Your task to perform on an android device: Set an alarm for 9am Image 0: 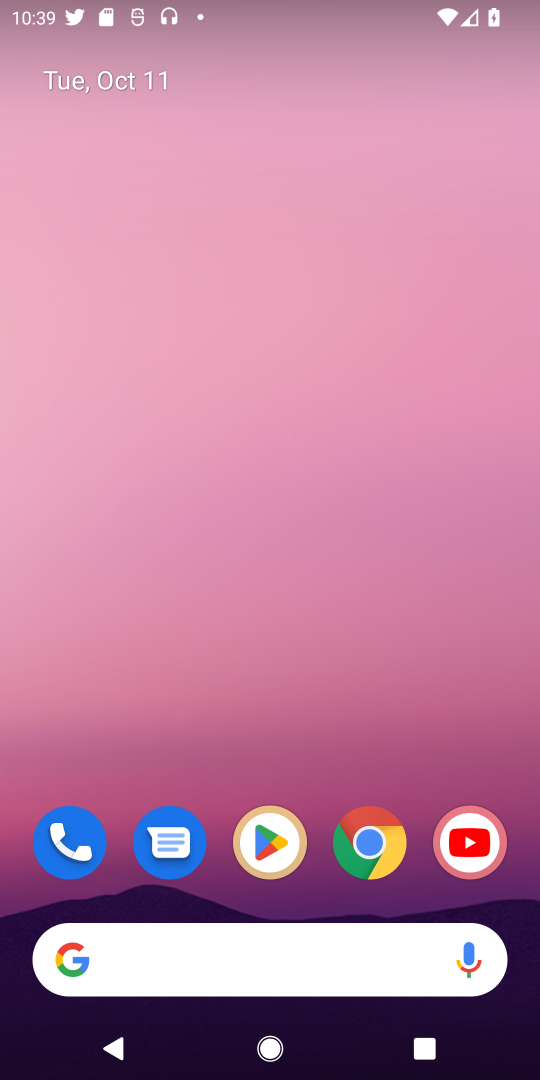
Step 0: drag from (330, 699) to (410, 344)
Your task to perform on an android device: Set an alarm for 9am Image 1: 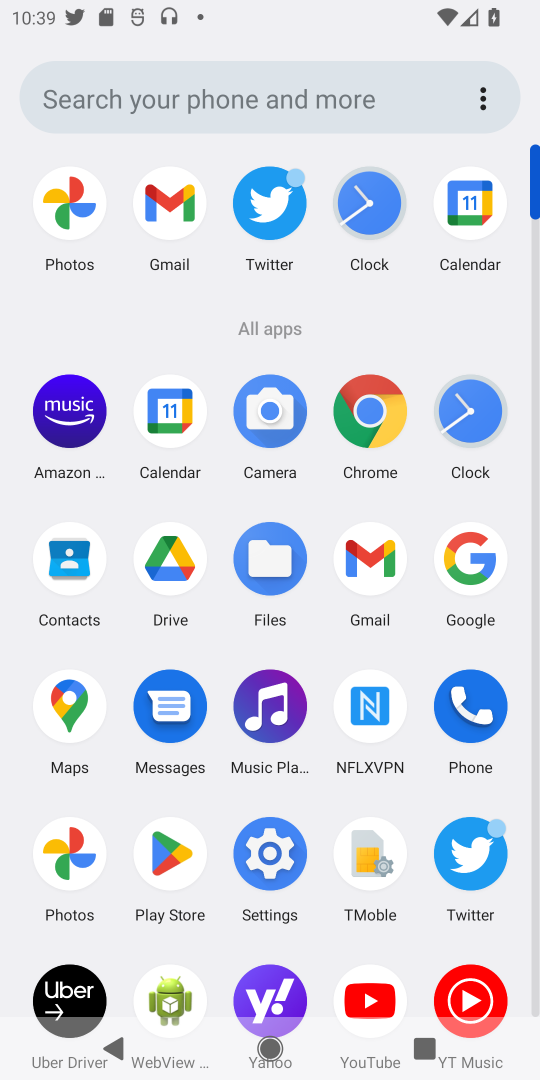
Step 1: click (453, 421)
Your task to perform on an android device: Set an alarm for 9am Image 2: 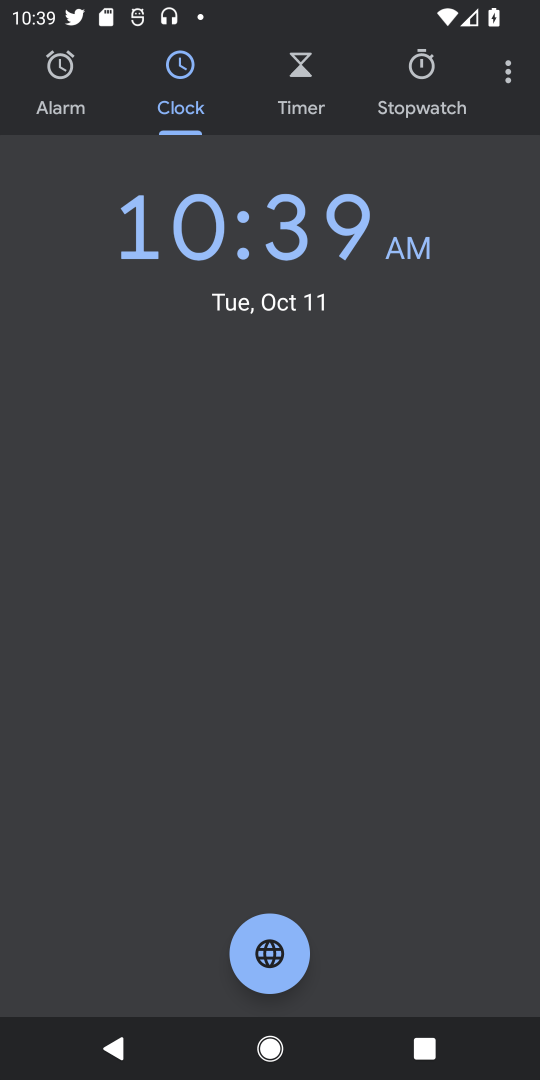
Step 2: click (38, 95)
Your task to perform on an android device: Set an alarm for 9am Image 3: 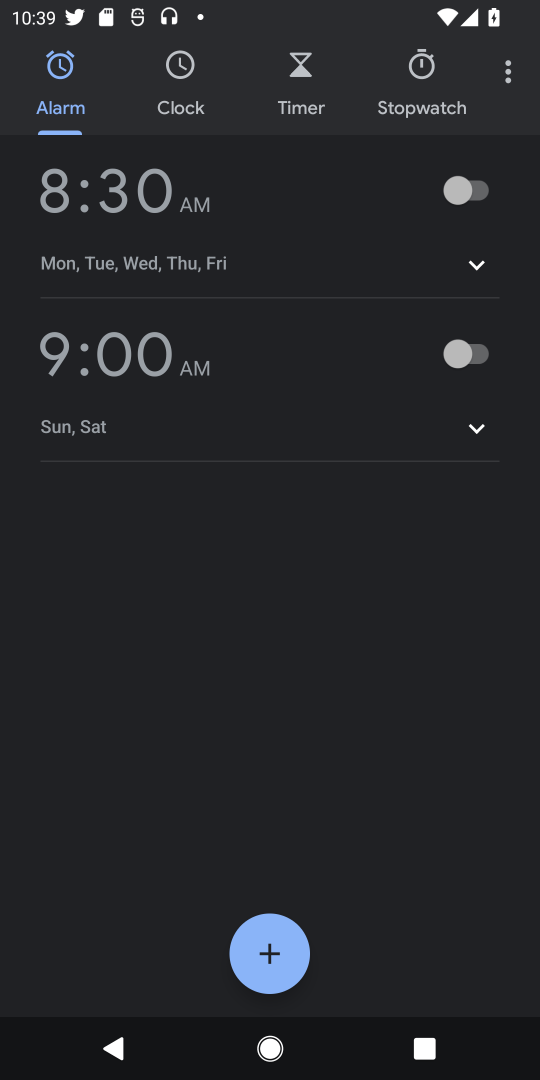
Step 3: click (189, 210)
Your task to perform on an android device: Set an alarm for 9am Image 4: 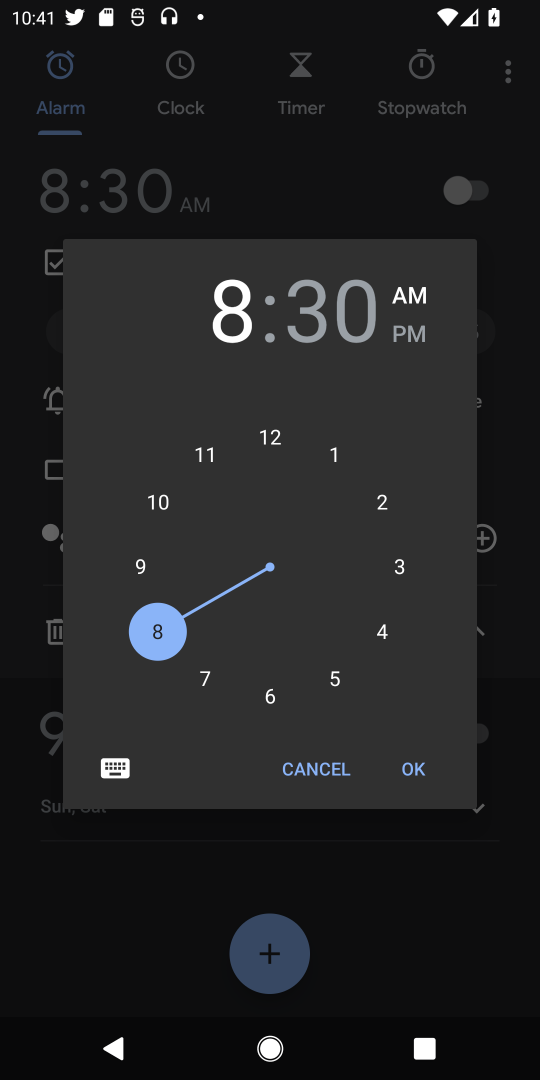
Step 4: click (130, 553)
Your task to perform on an android device: Set an alarm for 9am Image 5: 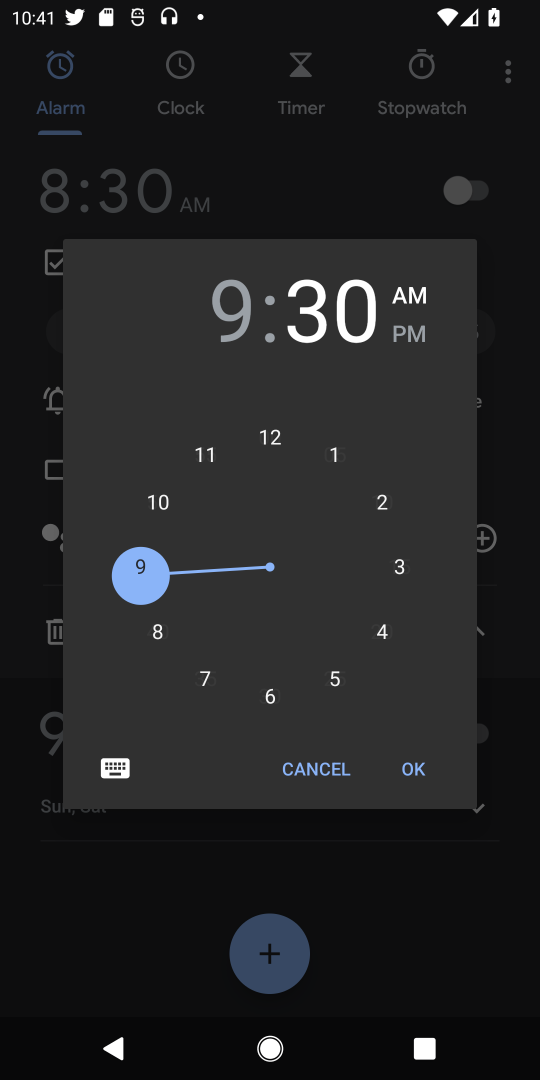
Step 5: click (142, 577)
Your task to perform on an android device: Set an alarm for 9am Image 6: 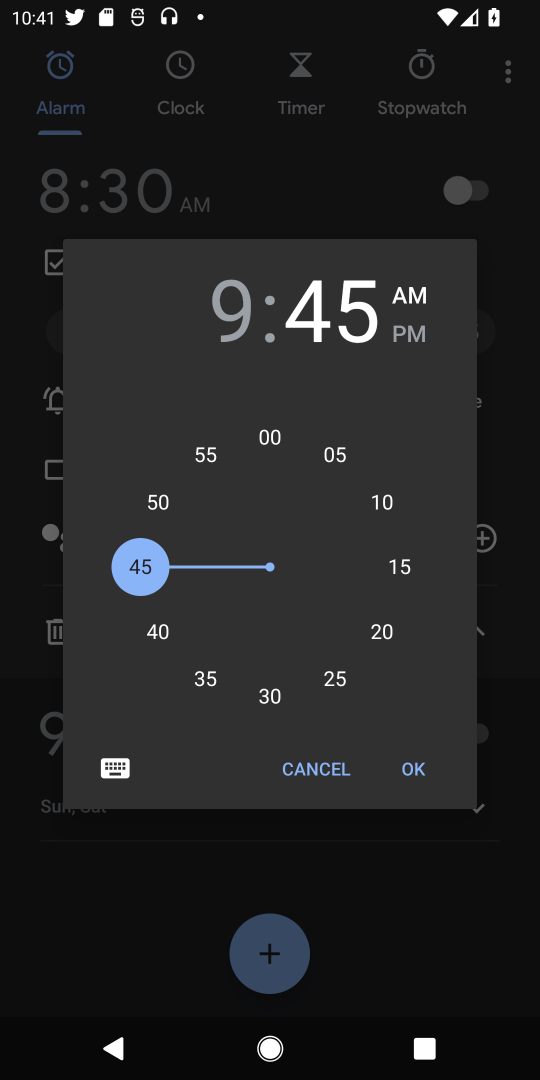
Step 6: click (146, 571)
Your task to perform on an android device: Set an alarm for 9am Image 7: 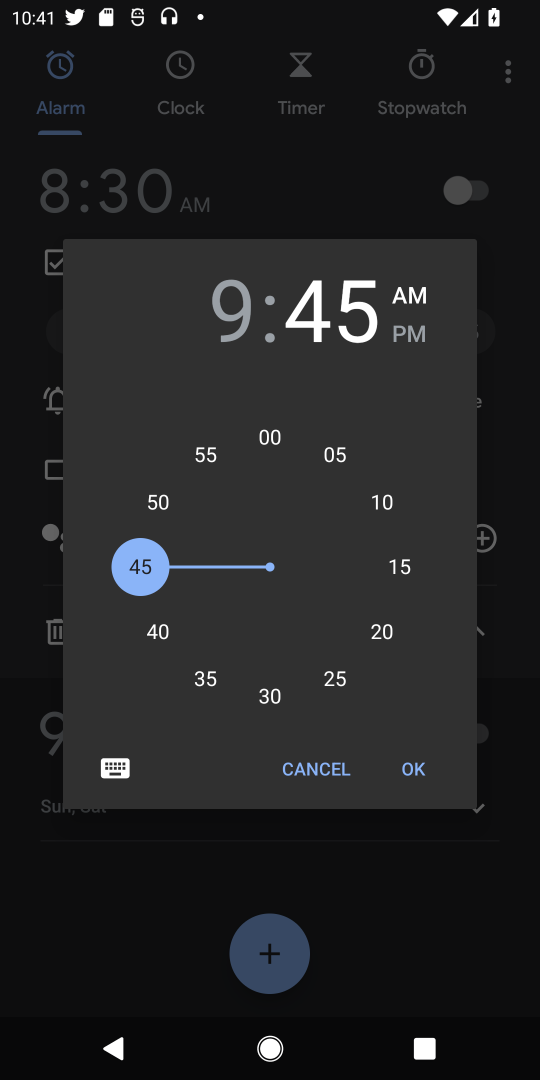
Step 7: click (308, 311)
Your task to perform on an android device: Set an alarm for 9am Image 8: 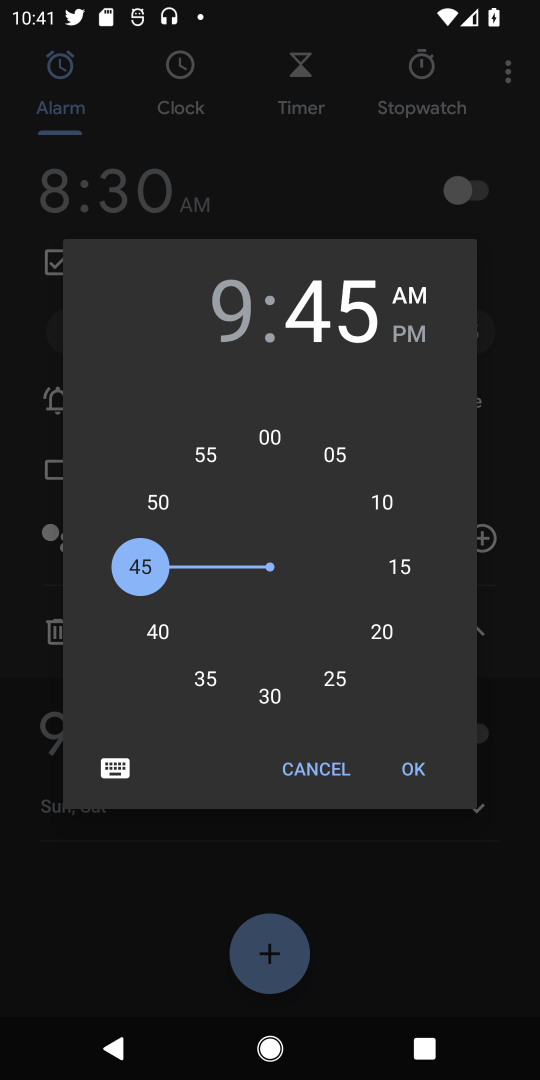
Step 8: click (277, 439)
Your task to perform on an android device: Set an alarm for 9am Image 9: 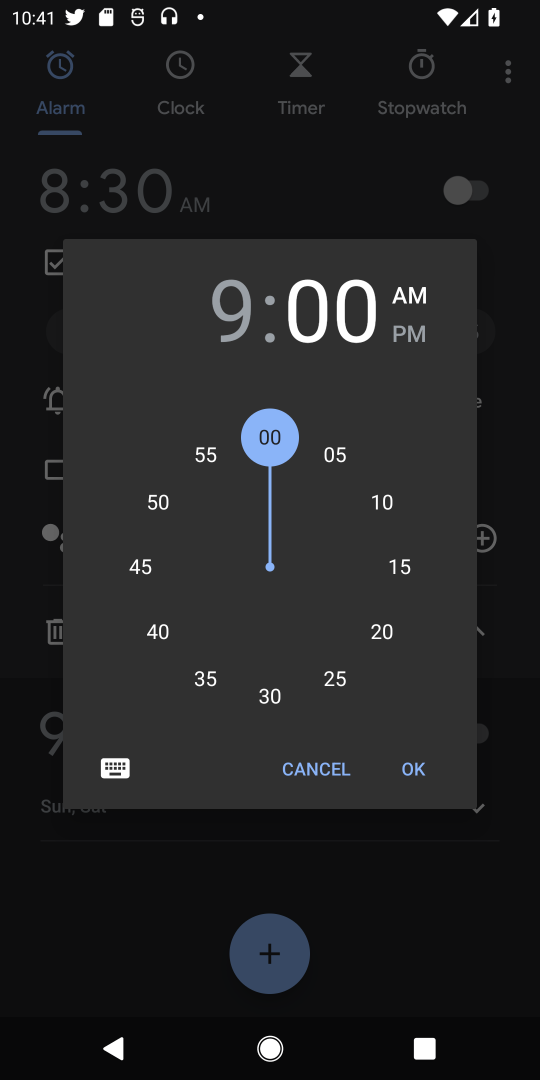
Step 9: click (419, 765)
Your task to perform on an android device: Set an alarm for 9am Image 10: 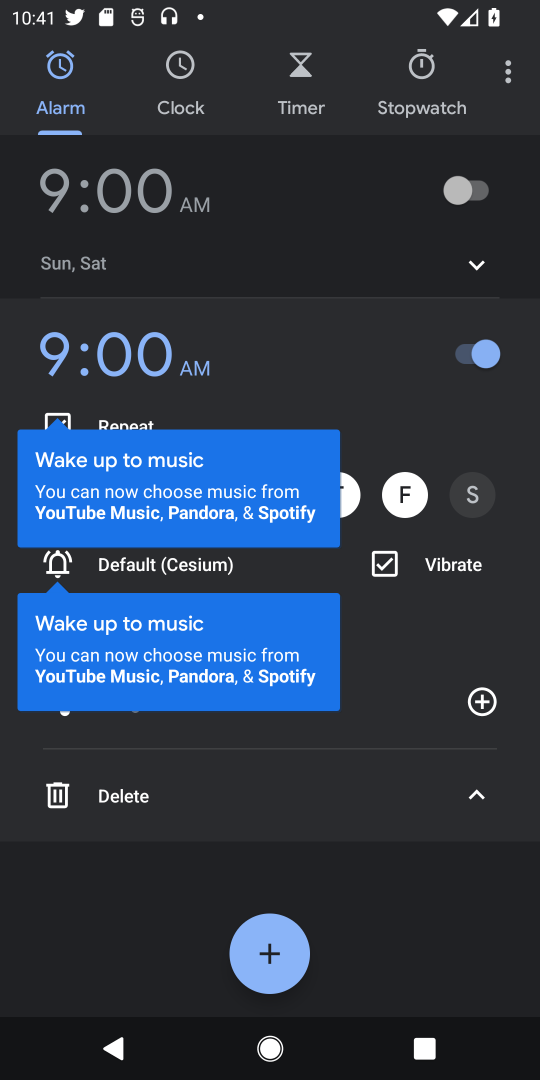
Step 10: task complete